Your task to perform on an android device: delete the emails in spam in the gmail app Image 0: 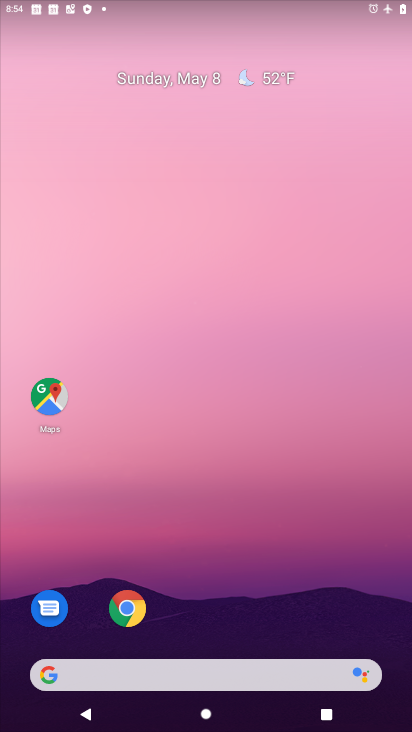
Step 0: drag from (266, 574) to (40, 10)
Your task to perform on an android device: delete the emails in spam in the gmail app Image 1: 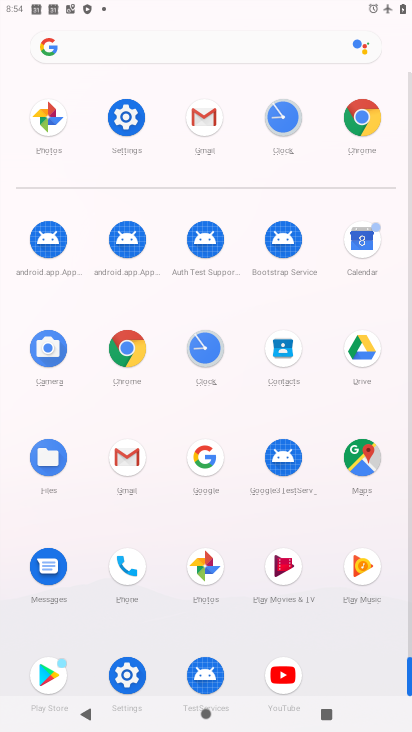
Step 1: drag from (12, 577) to (10, 306)
Your task to perform on an android device: delete the emails in spam in the gmail app Image 2: 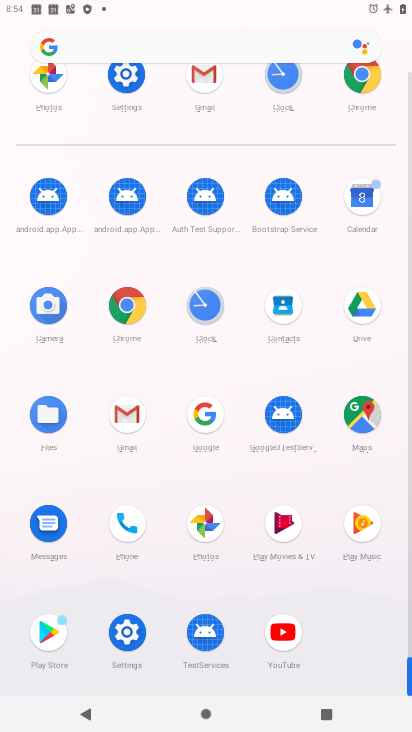
Step 2: click (128, 412)
Your task to perform on an android device: delete the emails in spam in the gmail app Image 3: 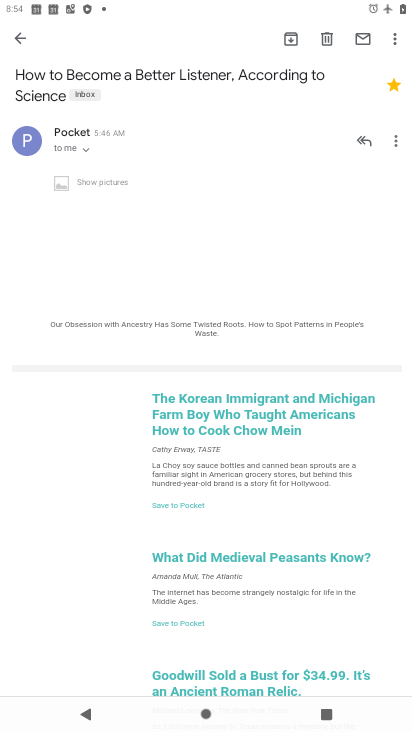
Step 3: click (26, 38)
Your task to perform on an android device: delete the emails in spam in the gmail app Image 4: 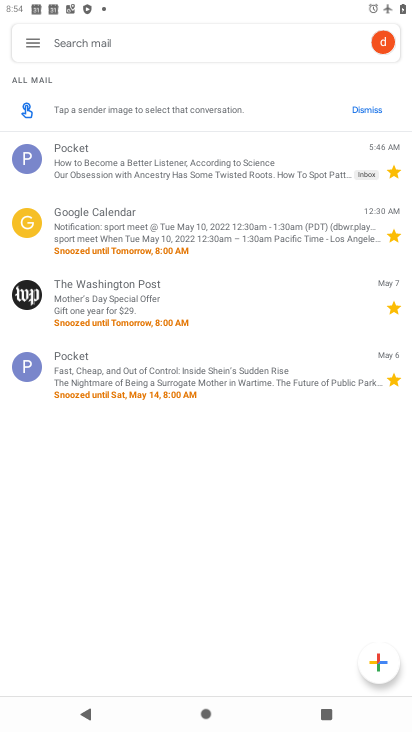
Step 4: click (26, 38)
Your task to perform on an android device: delete the emails in spam in the gmail app Image 5: 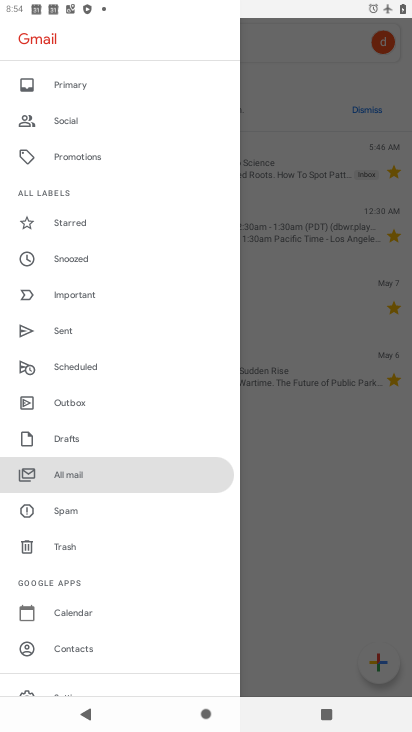
Step 5: click (49, 514)
Your task to perform on an android device: delete the emails in spam in the gmail app Image 6: 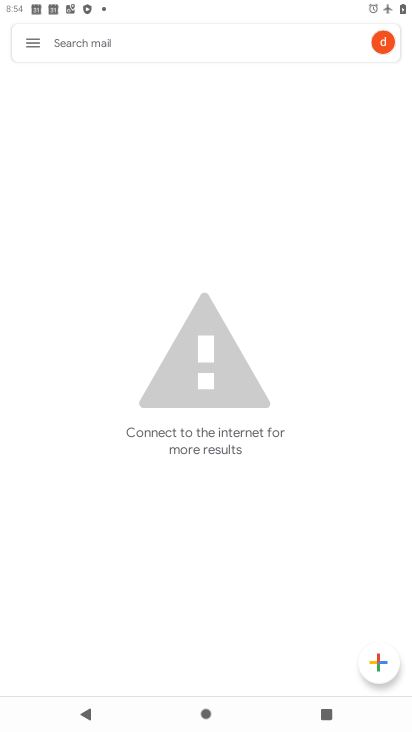
Step 6: task complete